Your task to perform on an android device: clear all cookies in the chrome app Image 0: 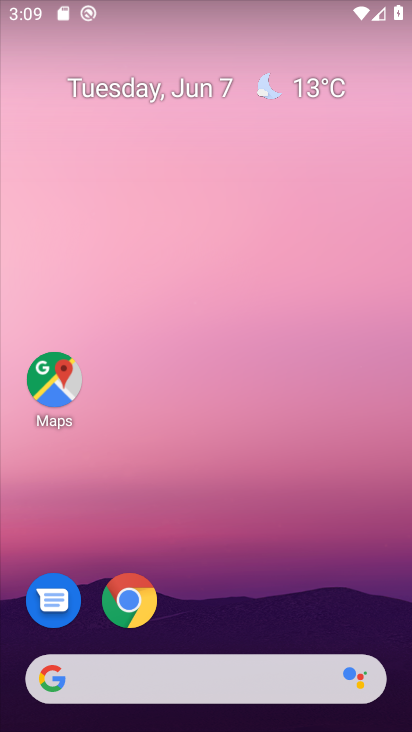
Step 0: drag from (275, 360) to (220, 109)
Your task to perform on an android device: clear all cookies in the chrome app Image 1: 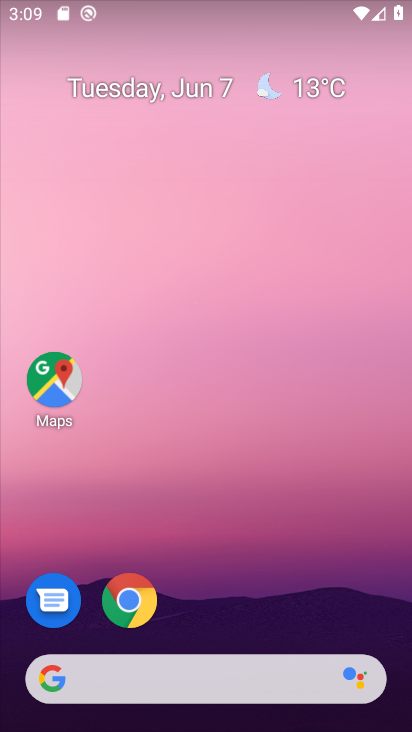
Step 1: drag from (291, 524) to (166, 34)
Your task to perform on an android device: clear all cookies in the chrome app Image 2: 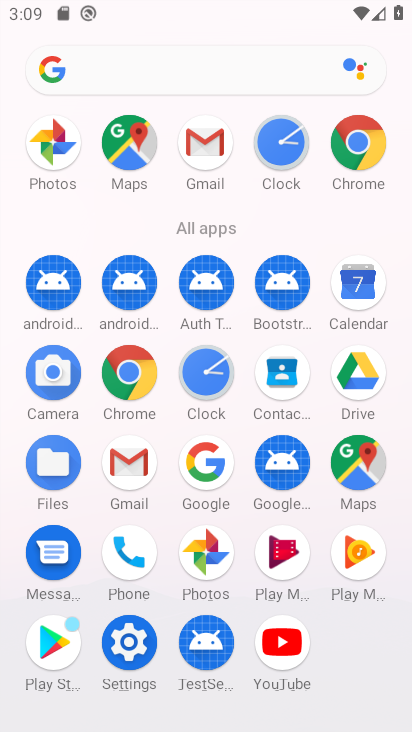
Step 2: click (123, 373)
Your task to perform on an android device: clear all cookies in the chrome app Image 3: 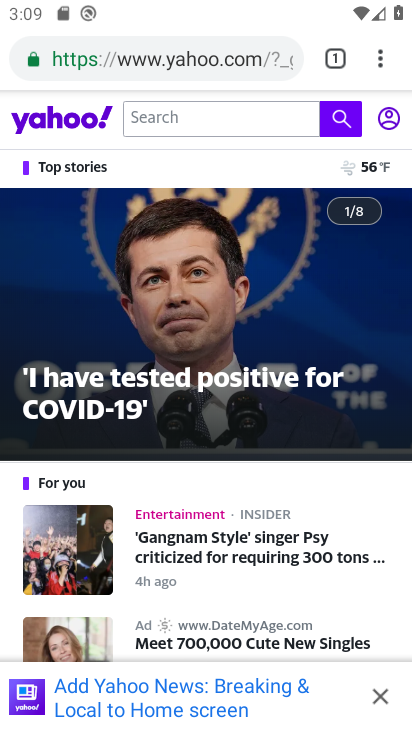
Step 3: drag from (383, 62) to (193, 328)
Your task to perform on an android device: clear all cookies in the chrome app Image 4: 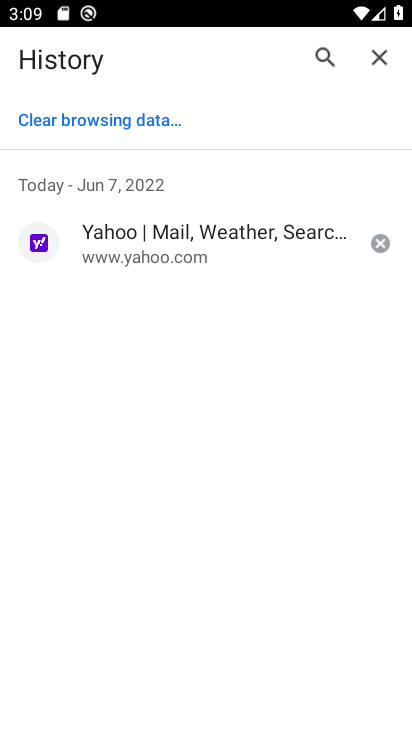
Step 4: click (81, 121)
Your task to perform on an android device: clear all cookies in the chrome app Image 5: 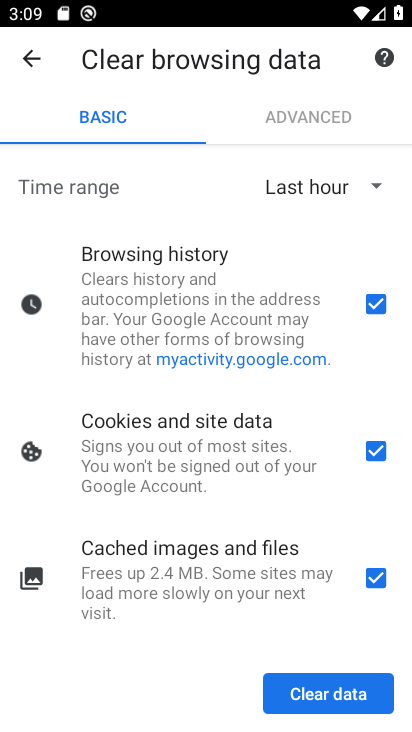
Step 5: click (323, 201)
Your task to perform on an android device: clear all cookies in the chrome app Image 6: 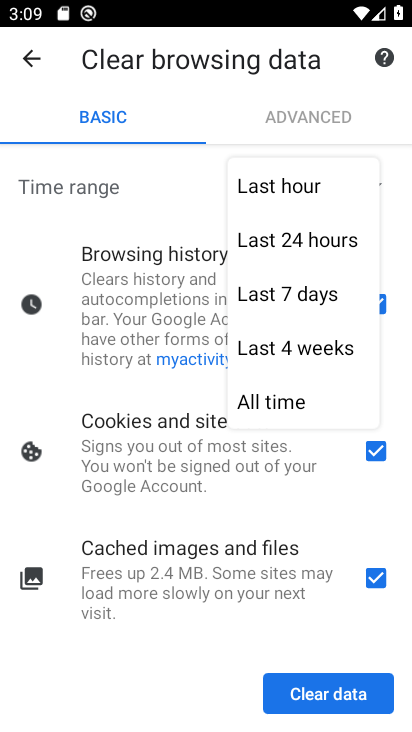
Step 6: click (285, 399)
Your task to perform on an android device: clear all cookies in the chrome app Image 7: 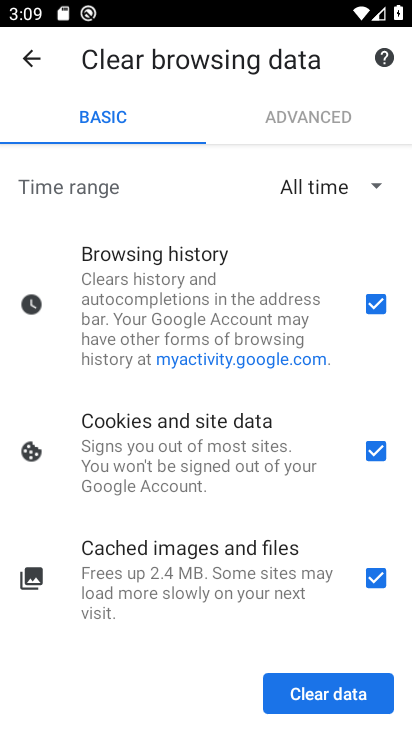
Step 7: click (335, 697)
Your task to perform on an android device: clear all cookies in the chrome app Image 8: 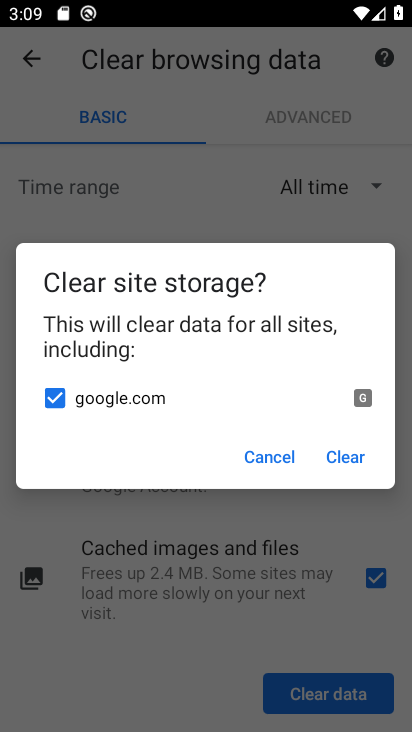
Step 8: click (347, 466)
Your task to perform on an android device: clear all cookies in the chrome app Image 9: 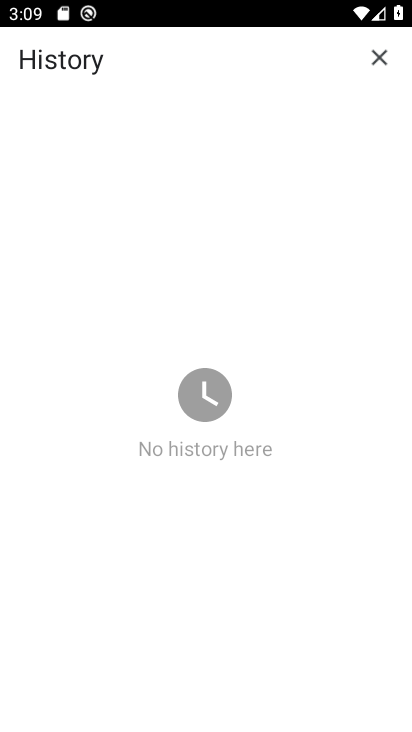
Step 9: task complete